Your task to perform on an android device: Open the stopwatch Image 0: 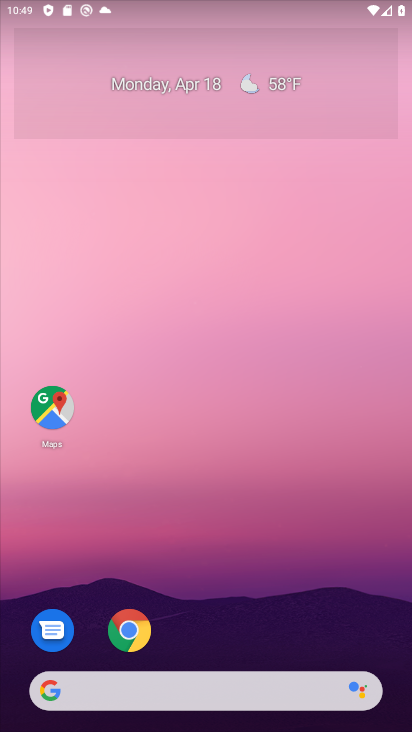
Step 0: drag from (202, 519) to (232, 124)
Your task to perform on an android device: Open the stopwatch Image 1: 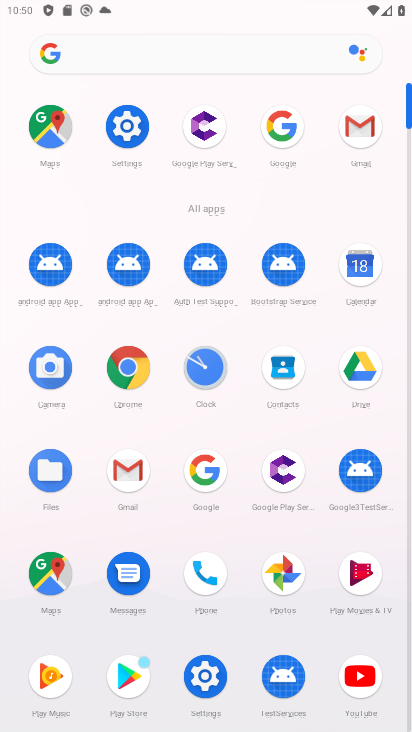
Step 1: drag from (129, 122) to (83, 166)
Your task to perform on an android device: Open the stopwatch Image 2: 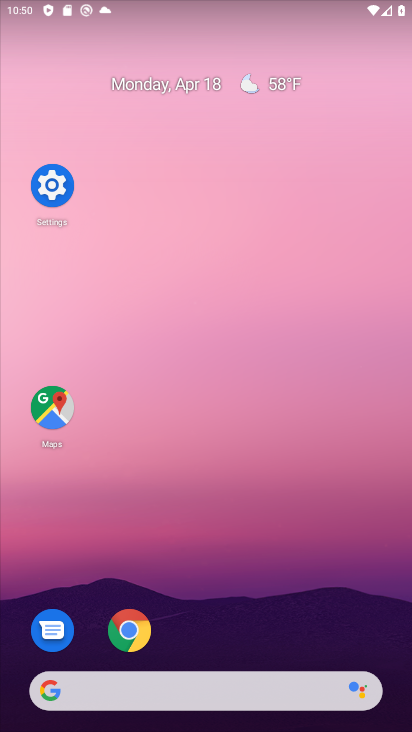
Step 2: click (51, 186)
Your task to perform on an android device: Open the stopwatch Image 3: 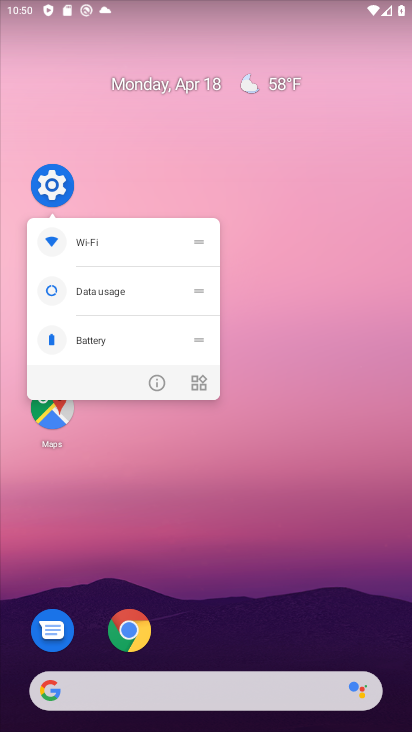
Step 3: click (27, 192)
Your task to perform on an android device: Open the stopwatch Image 4: 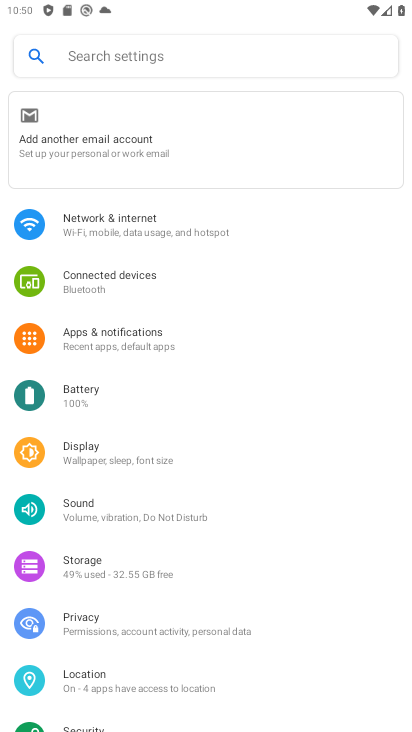
Step 4: press home button
Your task to perform on an android device: Open the stopwatch Image 5: 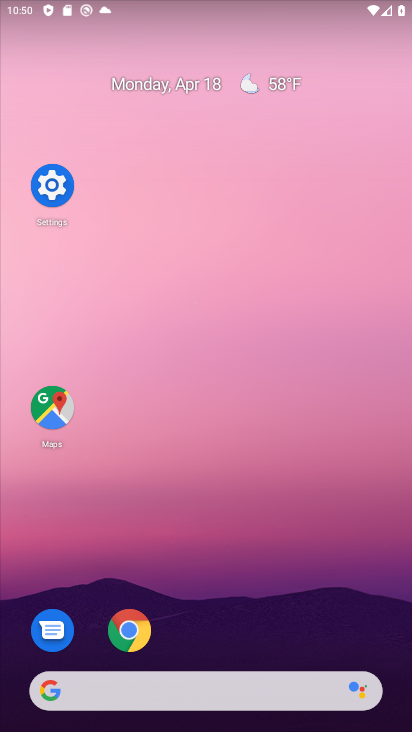
Step 5: drag from (244, 471) to (221, 138)
Your task to perform on an android device: Open the stopwatch Image 6: 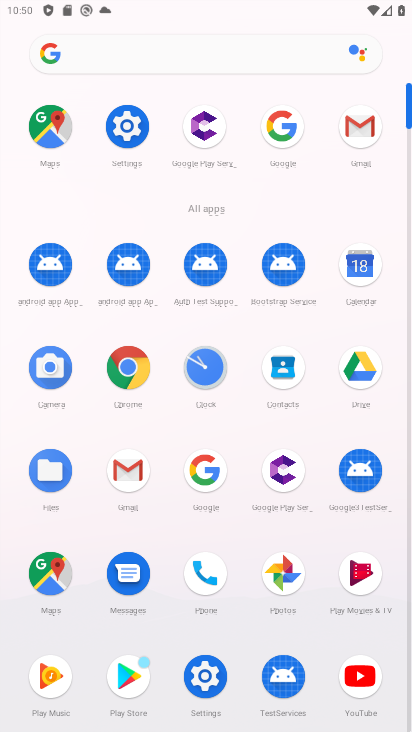
Step 6: click (210, 370)
Your task to perform on an android device: Open the stopwatch Image 7: 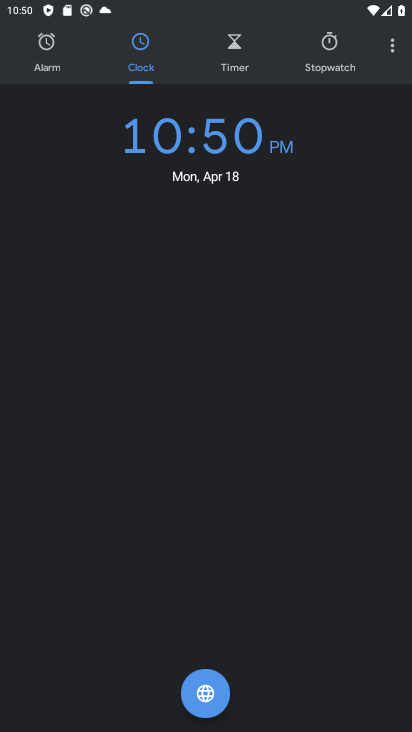
Step 7: click (328, 56)
Your task to perform on an android device: Open the stopwatch Image 8: 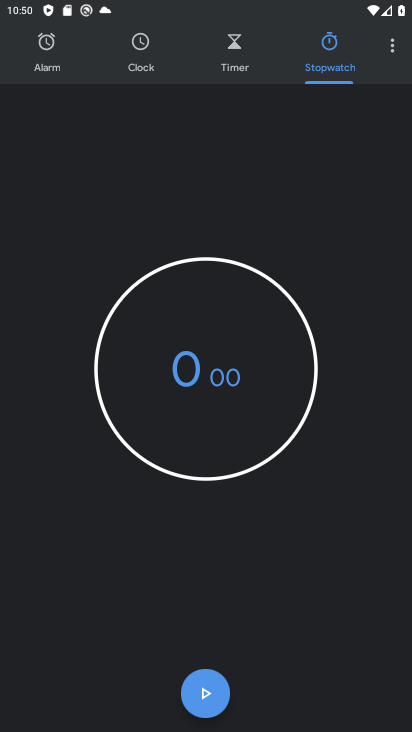
Step 8: click (217, 694)
Your task to perform on an android device: Open the stopwatch Image 9: 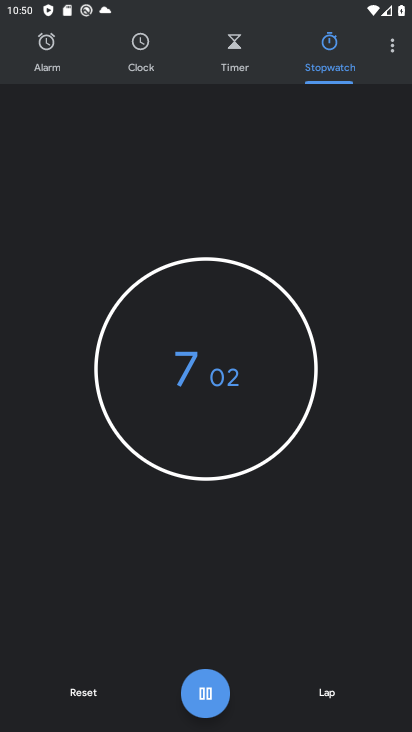
Step 9: task complete